Your task to perform on an android device: Go to CNN.com Image 0: 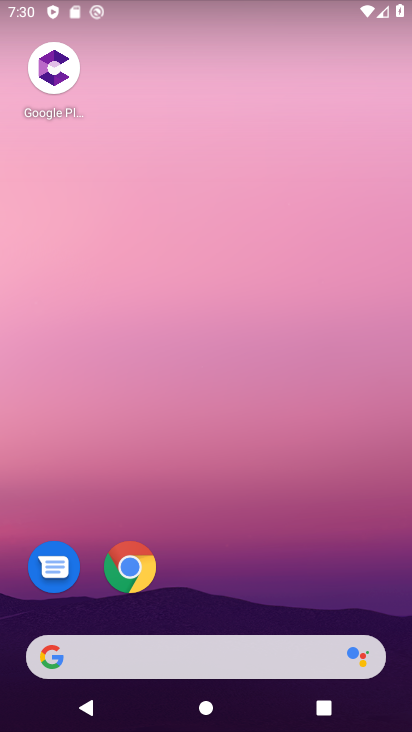
Step 0: click (171, 652)
Your task to perform on an android device: Go to CNN.com Image 1: 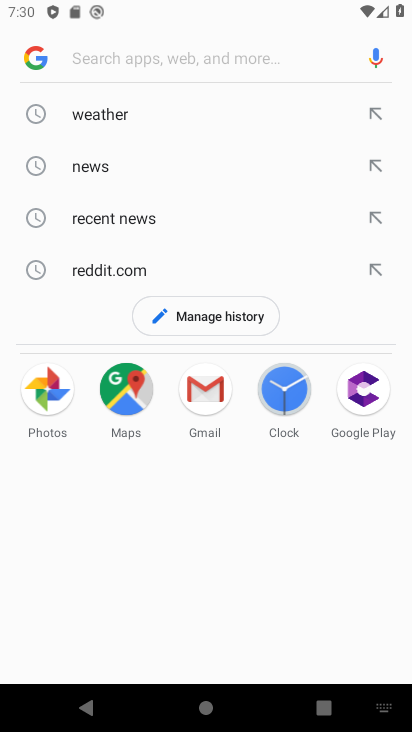
Step 1: type "cnn.com"
Your task to perform on an android device: Go to CNN.com Image 2: 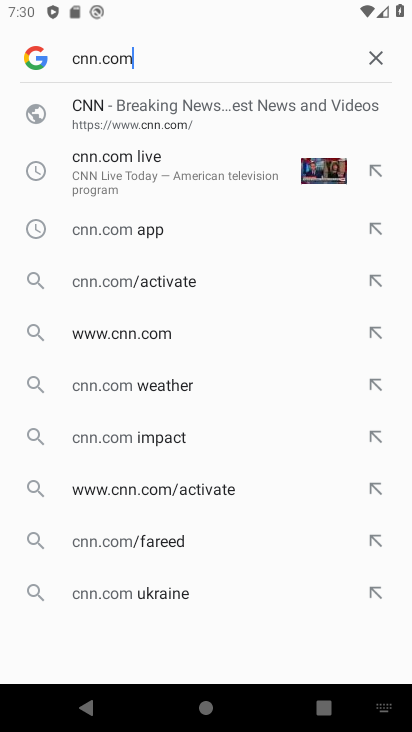
Step 2: click (135, 118)
Your task to perform on an android device: Go to CNN.com Image 3: 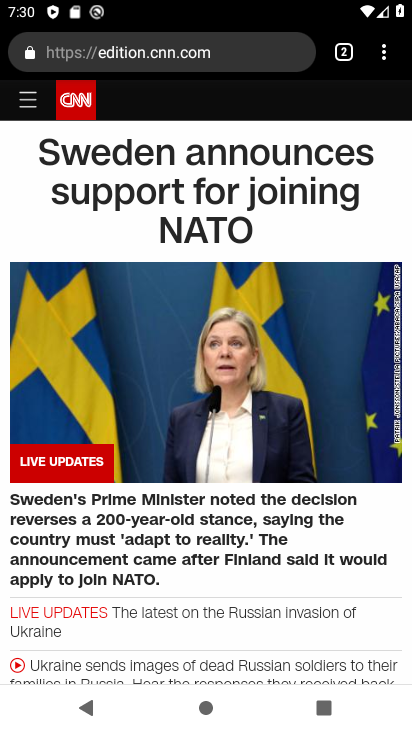
Step 3: task complete